Your task to perform on an android device: Go to Yahoo.com Image 0: 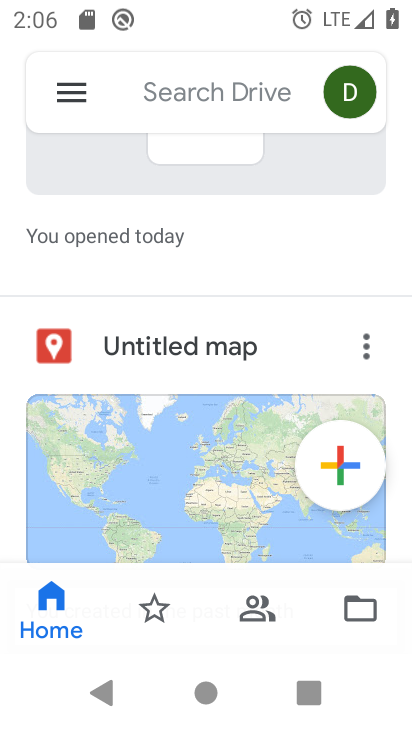
Step 0: press home button
Your task to perform on an android device: Go to Yahoo.com Image 1: 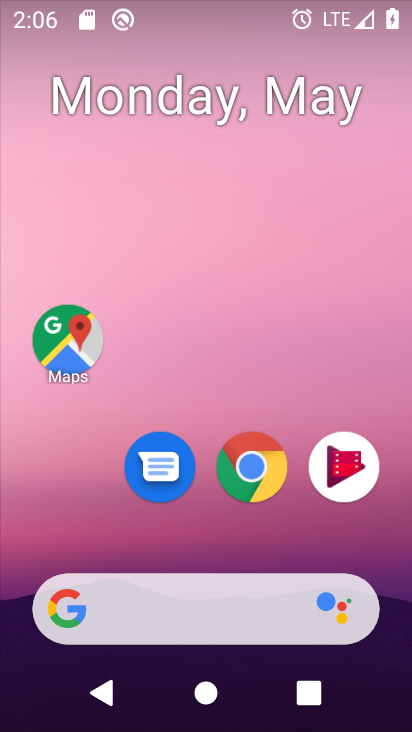
Step 1: drag from (249, 470) to (301, 241)
Your task to perform on an android device: Go to Yahoo.com Image 2: 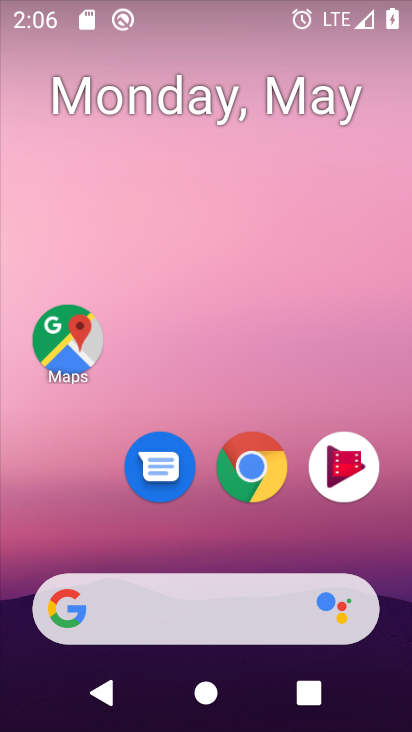
Step 2: click (269, 469)
Your task to perform on an android device: Go to Yahoo.com Image 3: 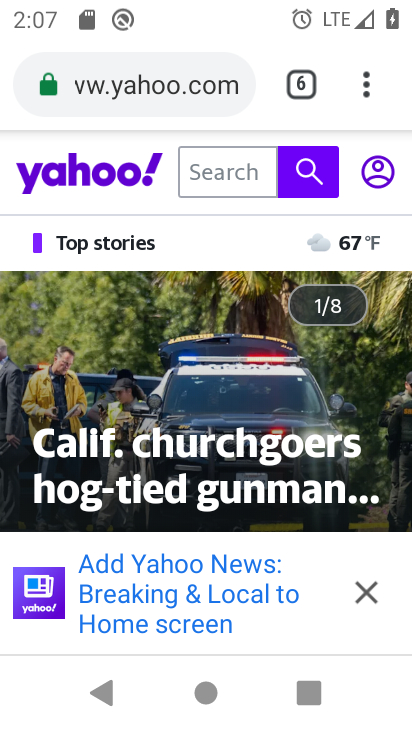
Step 3: task complete